Your task to perform on an android device: see creations saved in the google photos Image 0: 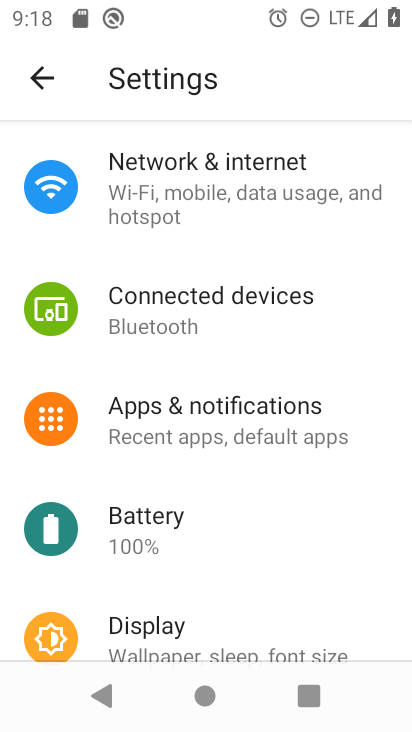
Step 0: press home button
Your task to perform on an android device: see creations saved in the google photos Image 1: 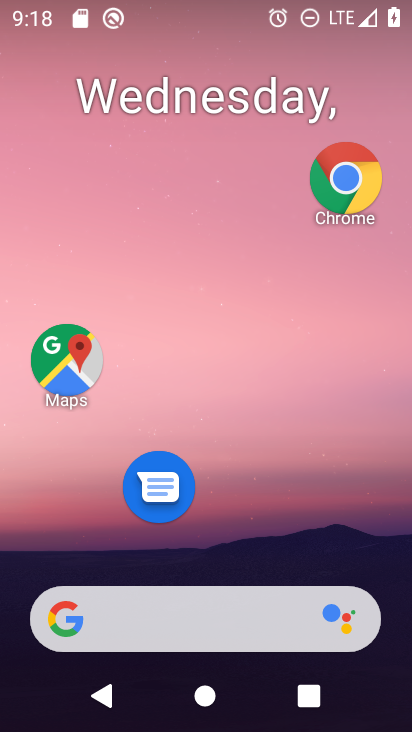
Step 1: drag from (312, 606) to (330, 189)
Your task to perform on an android device: see creations saved in the google photos Image 2: 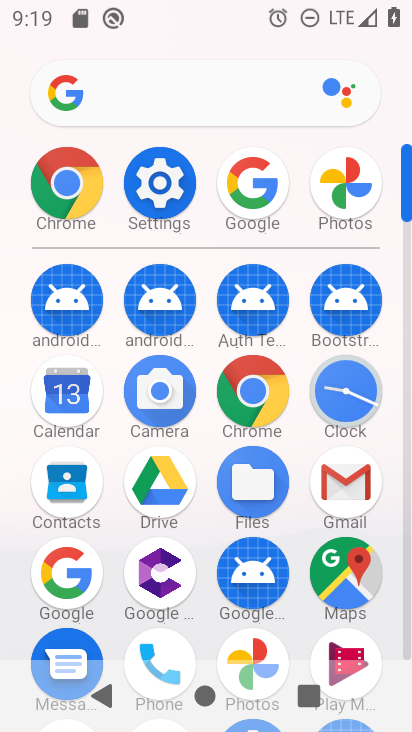
Step 2: drag from (245, 502) to (237, 170)
Your task to perform on an android device: see creations saved in the google photos Image 3: 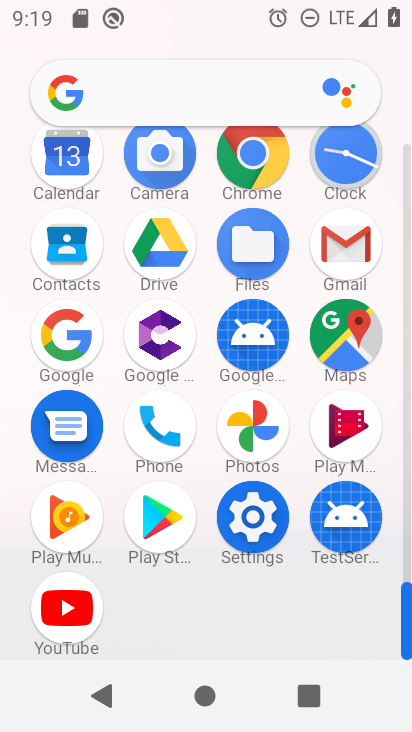
Step 3: click (261, 445)
Your task to perform on an android device: see creations saved in the google photos Image 4: 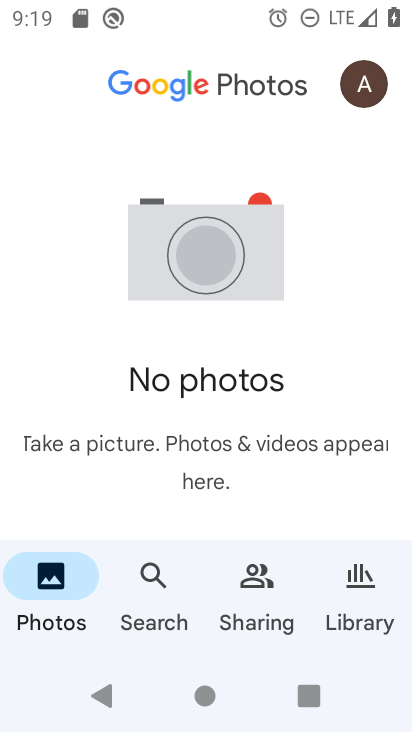
Step 4: click (367, 599)
Your task to perform on an android device: see creations saved in the google photos Image 5: 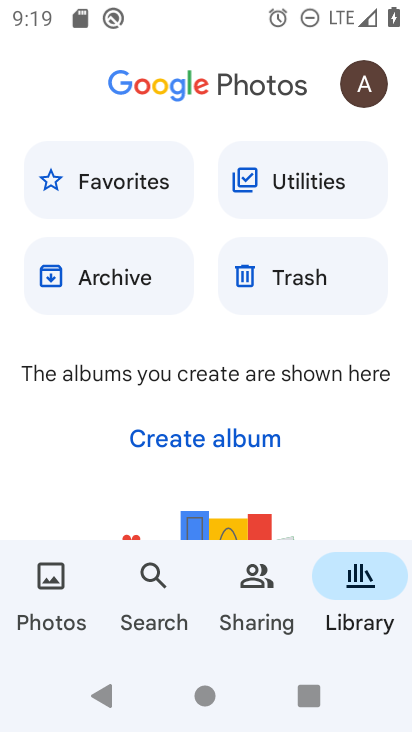
Step 5: task complete